Your task to perform on an android device: delete a single message in the gmail app Image 0: 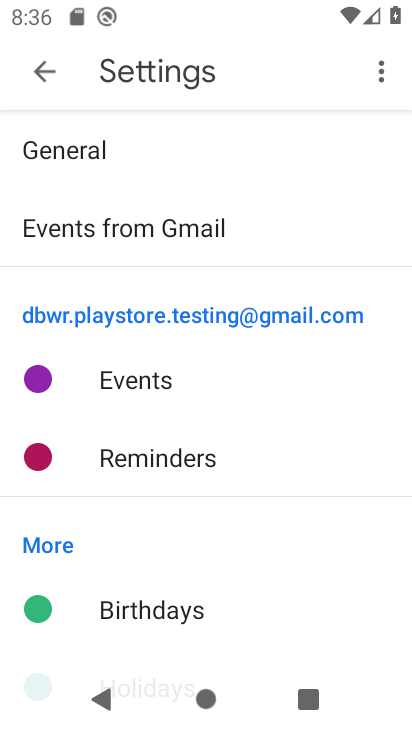
Step 0: press home button
Your task to perform on an android device: delete a single message in the gmail app Image 1: 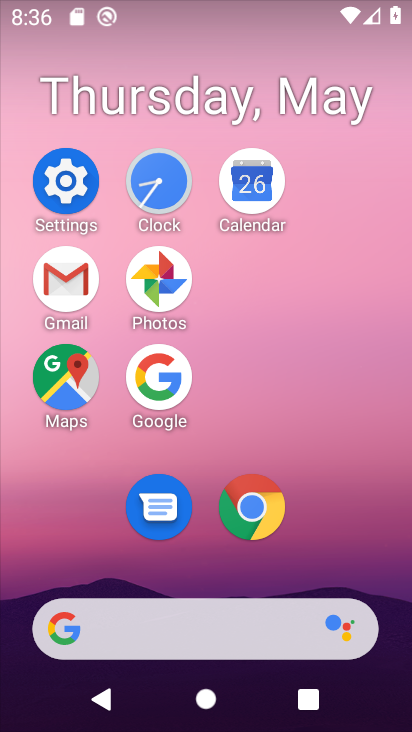
Step 1: click (72, 277)
Your task to perform on an android device: delete a single message in the gmail app Image 2: 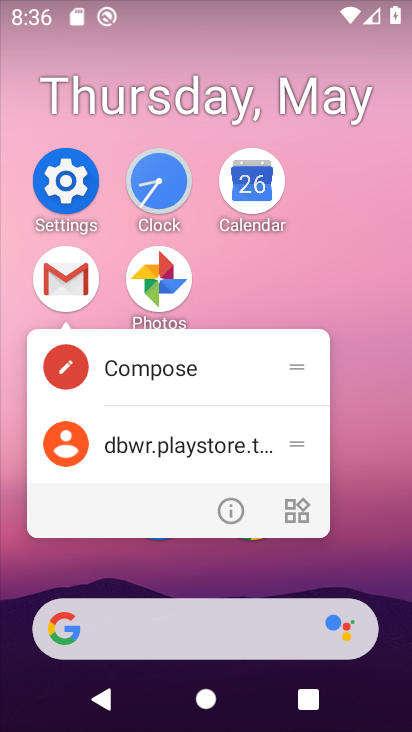
Step 2: click (47, 271)
Your task to perform on an android device: delete a single message in the gmail app Image 3: 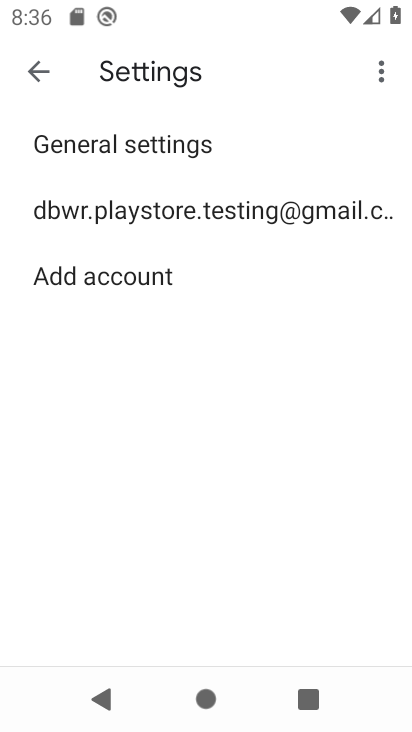
Step 3: click (50, 57)
Your task to perform on an android device: delete a single message in the gmail app Image 4: 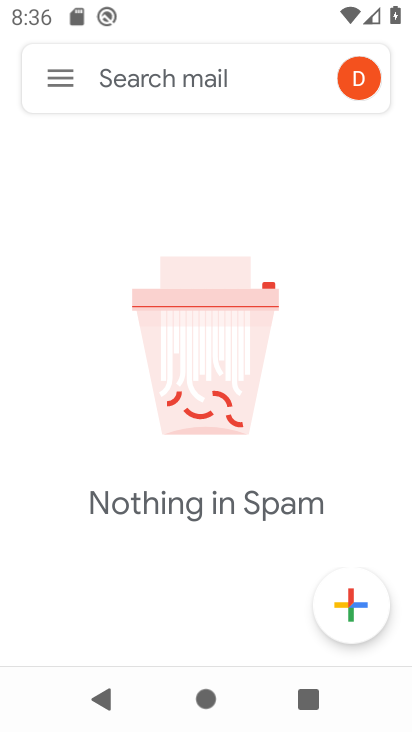
Step 4: click (90, 103)
Your task to perform on an android device: delete a single message in the gmail app Image 5: 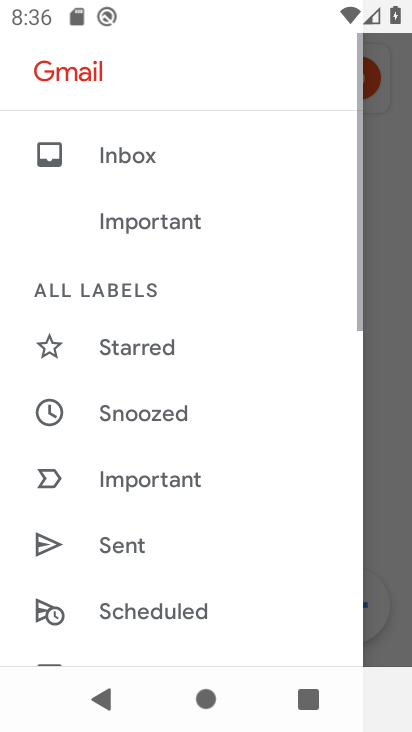
Step 5: drag from (267, 384) to (282, 176)
Your task to perform on an android device: delete a single message in the gmail app Image 6: 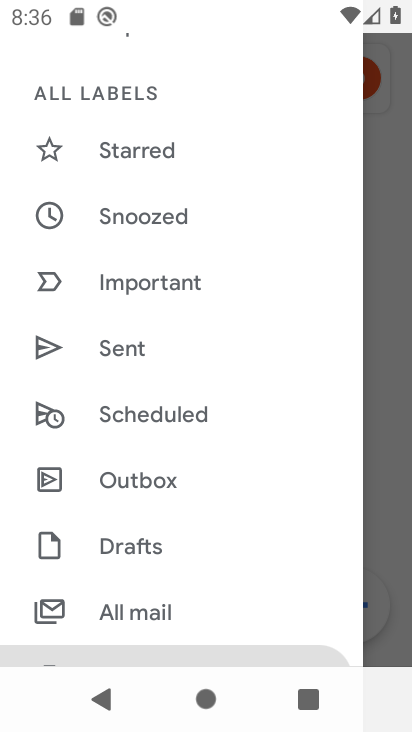
Step 6: click (190, 609)
Your task to perform on an android device: delete a single message in the gmail app Image 7: 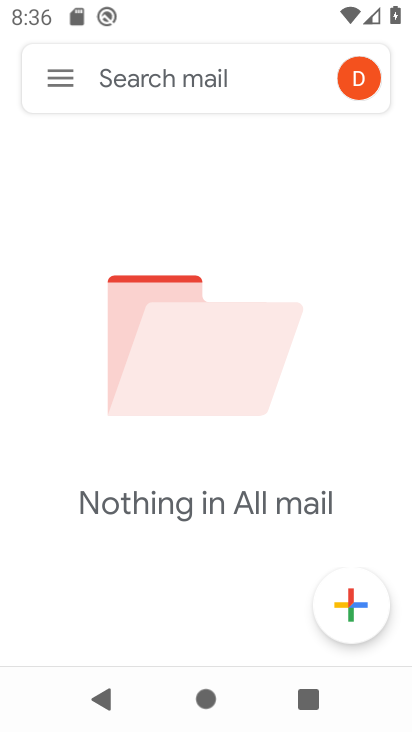
Step 7: task complete